Your task to perform on an android device: Search for vegetarian restaurants on Maps Image 0: 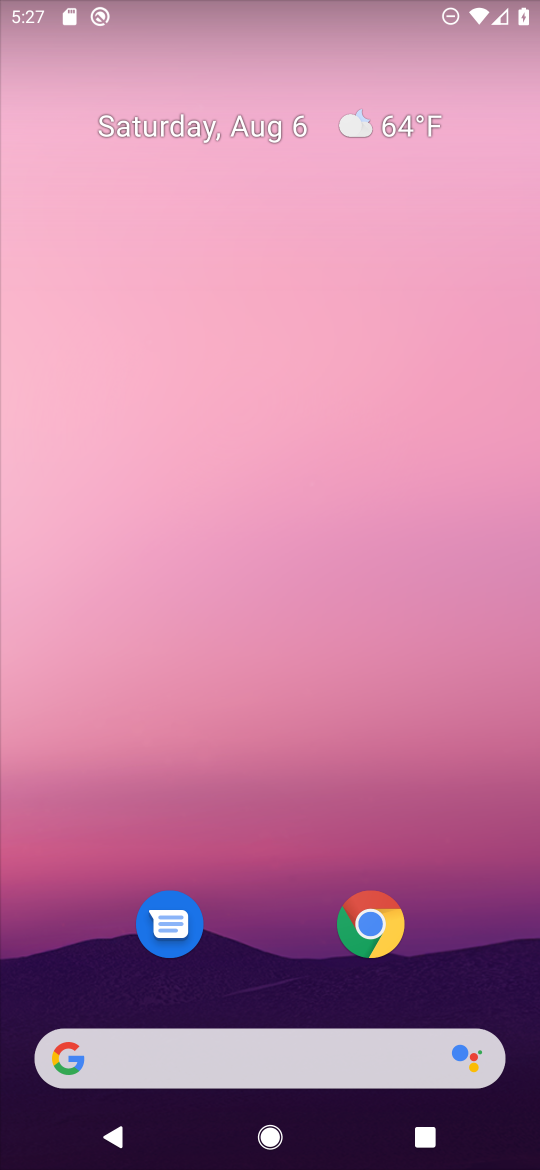
Step 0: drag from (266, 865) to (233, 195)
Your task to perform on an android device: Search for vegetarian restaurants on Maps Image 1: 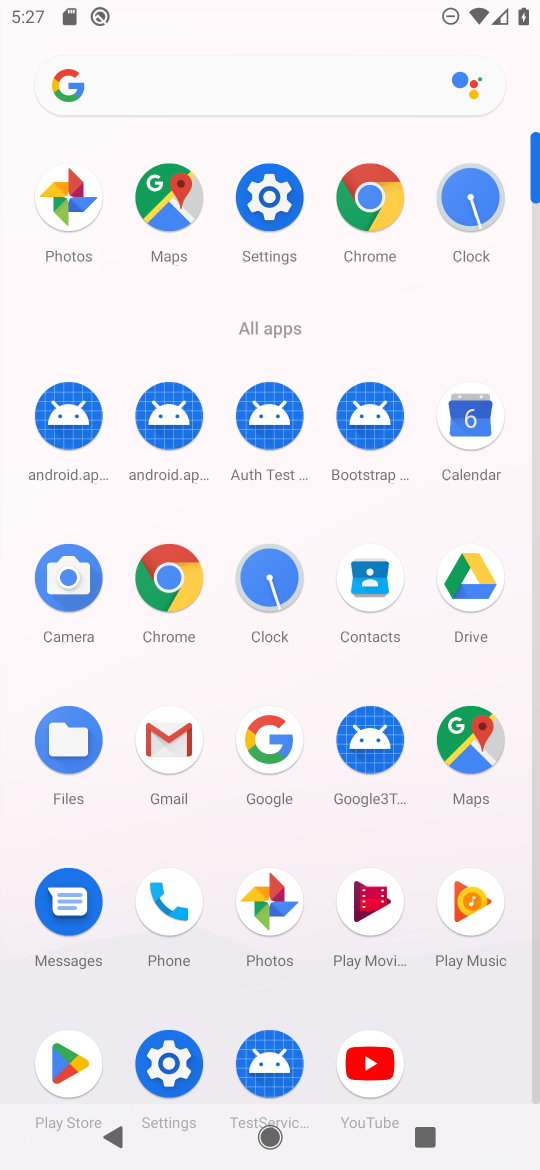
Step 1: click (464, 736)
Your task to perform on an android device: Search for vegetarian restaurants on Maps Image 2: 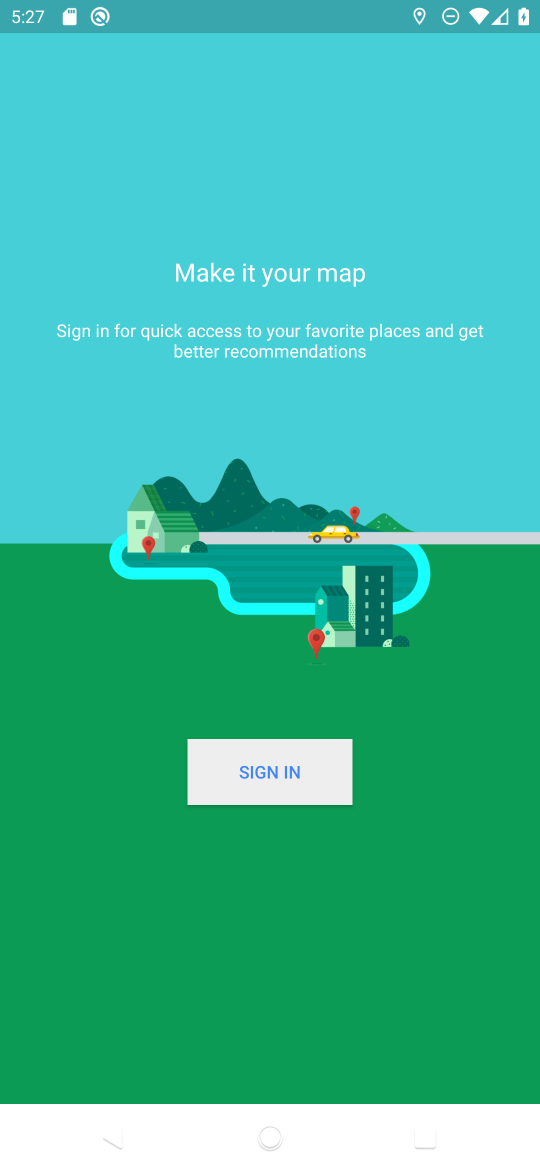
Step 2: task complete